Your task to perform on an android device: turn smart compose on in the gmail app Image 0: 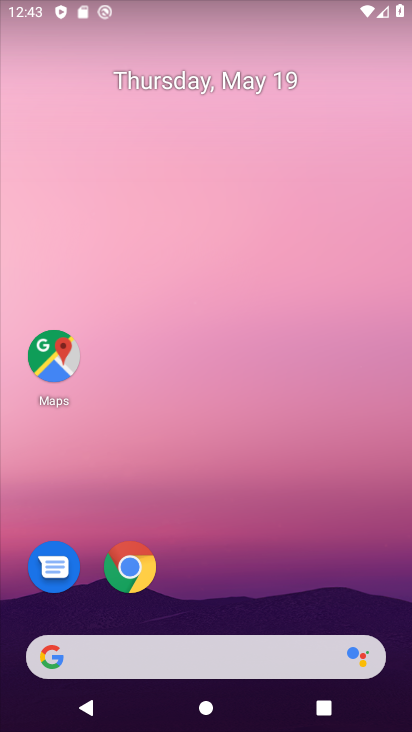
Step 0: drag from (0, 641) to (212, 158)
Your task to perform on an android device: turn smart compose on in the gmail app Image 1: 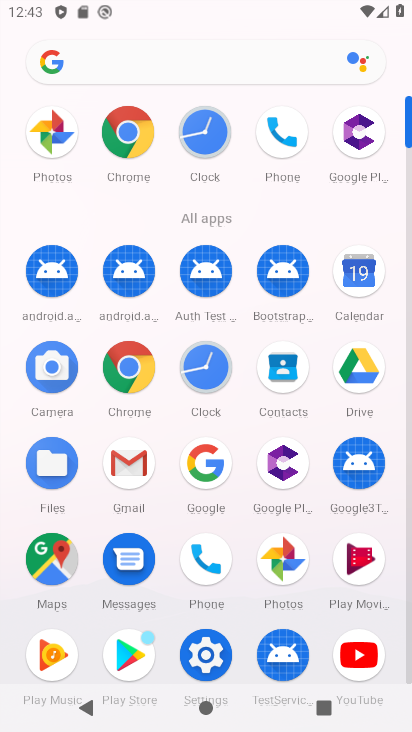
Step 1: click (130, 458)
Your task to perform on an android device: turn smart compose on in the gmail app Image 2: 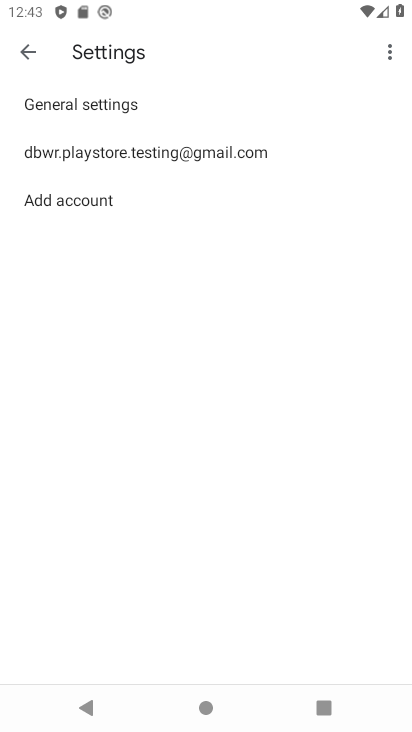
Step 2: click (228, 154)
Your task to perform on an android device: turn smart compose on in the gmail app Image 3: 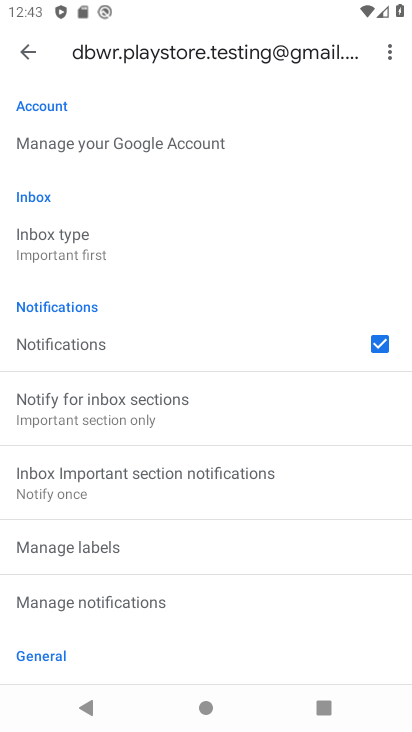
Step 3: task complete